Your task to perform on an android device: open a new tab in the chrome app Image 0: 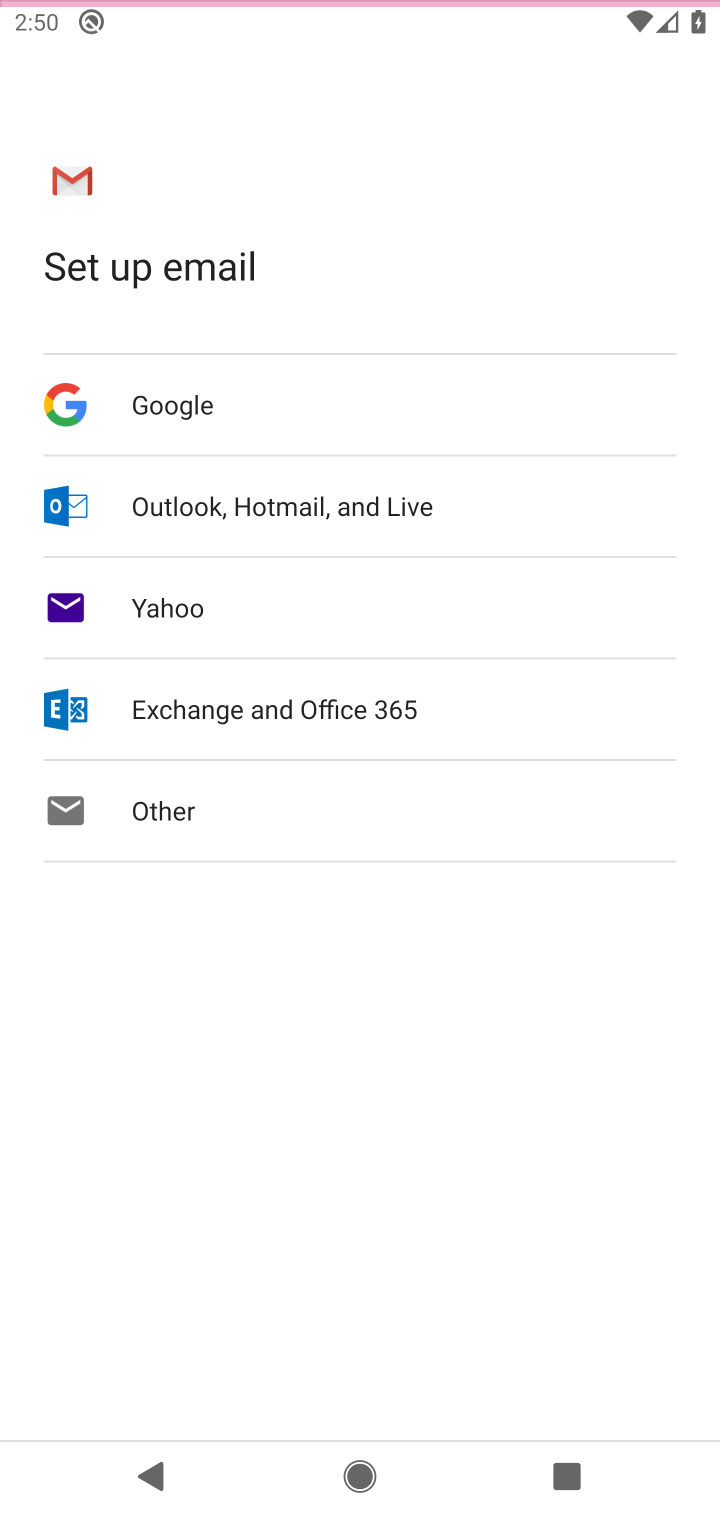
Step 0: press home button
Your task to perform on an android device: open a new tab in the chrome app Image 1: 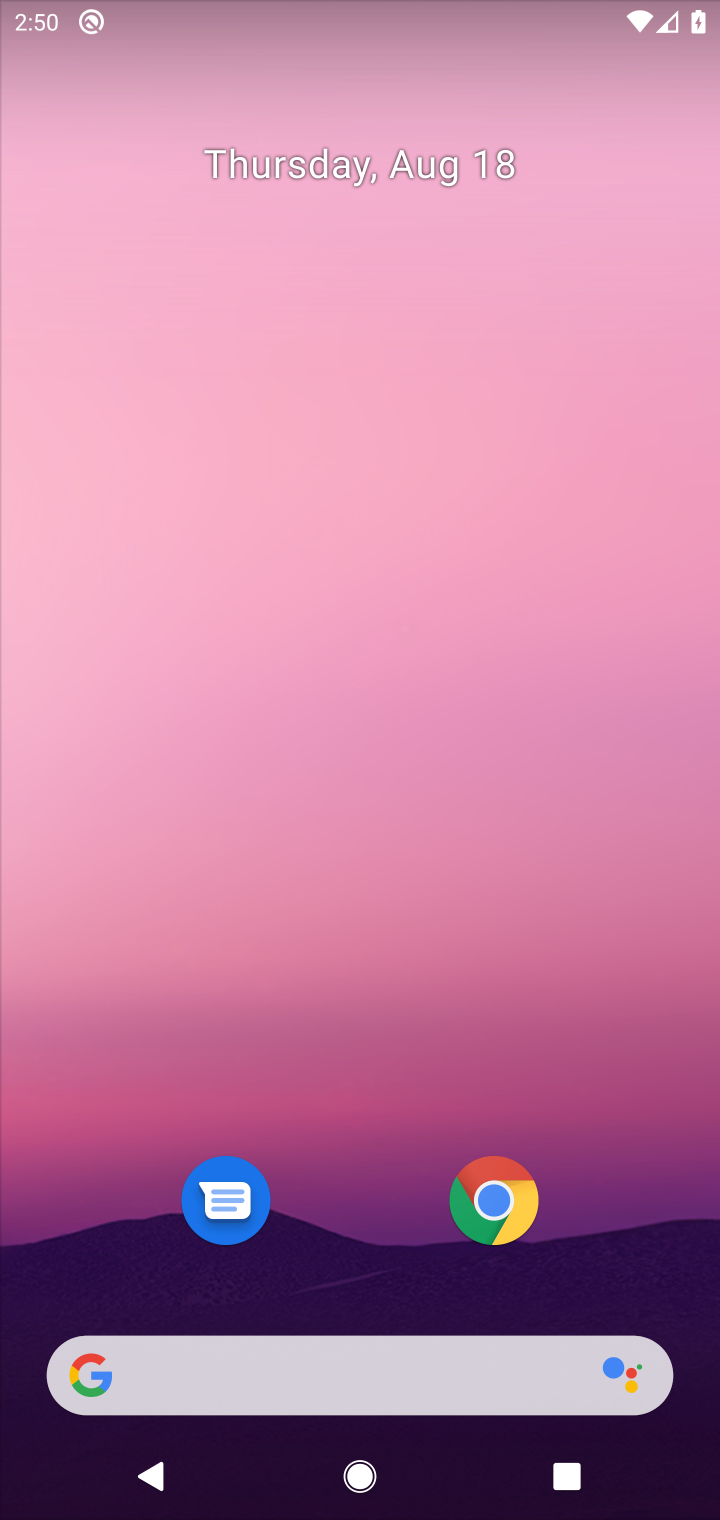
Step 1: drag from (305, 1288) to (402, 16)
Your task to perform on an android device: open a new tab in the chrome app Image 2: 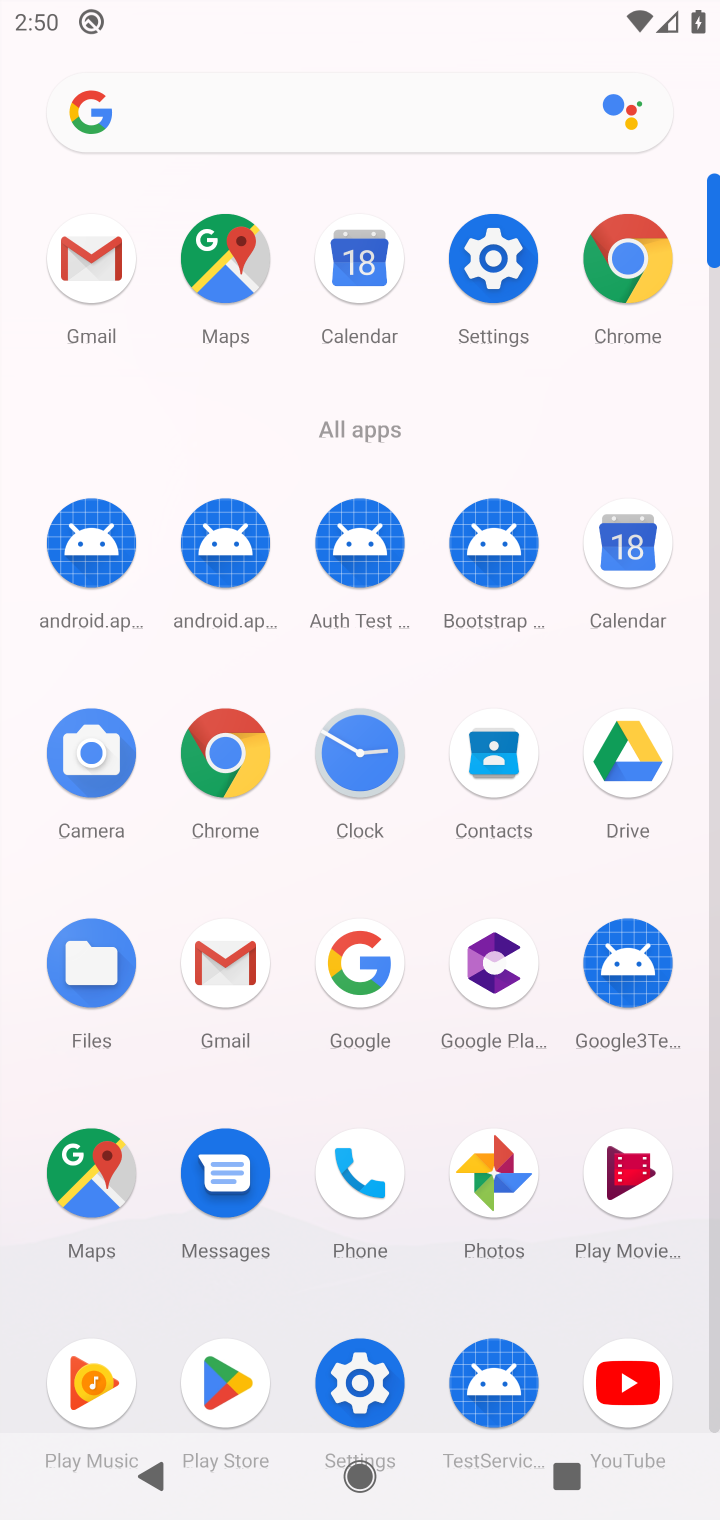
Step 2: click (224, 719)
Your task to perform on an android device: open a new tab in the chrome app Image 3: 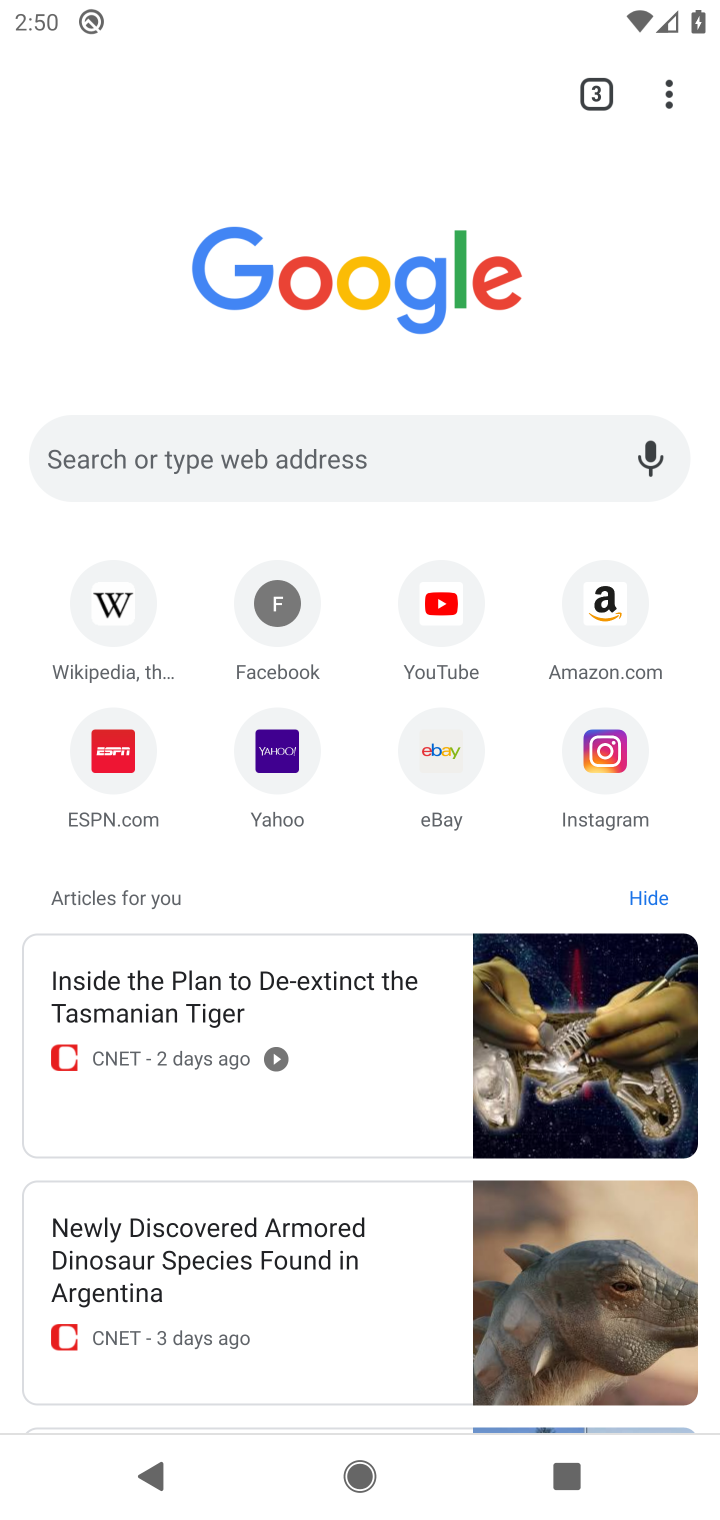
Step 3: task complete